Your task to perform on an android device: move an email to a new category in the gmail app Image 0: 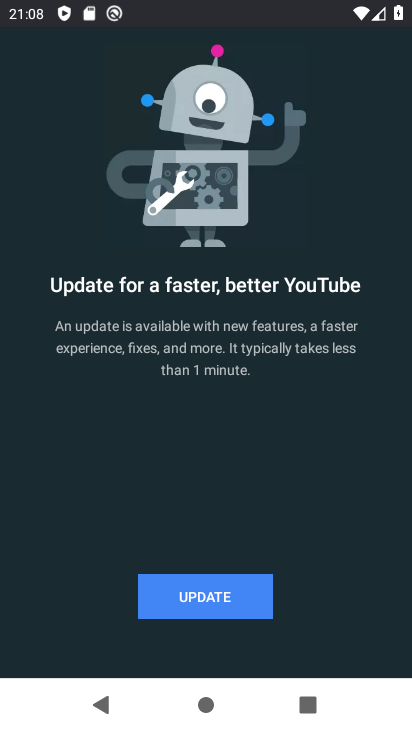
Step 0: press home button
Your task to perform on an android device: move an email to a new category in the gmail app Image 1: 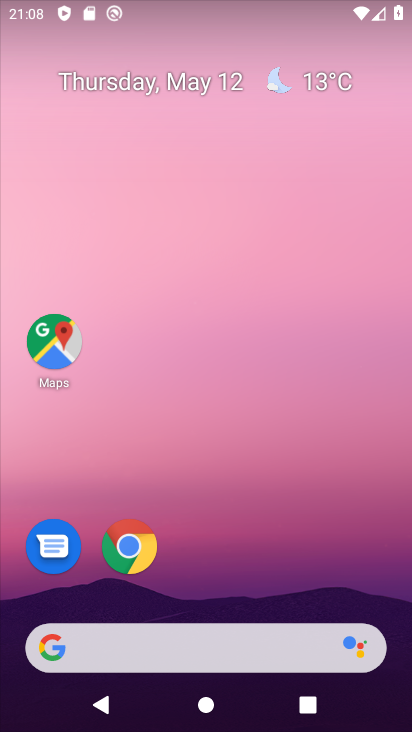
Step 1: drag from (287, 571) to (243, 56)
Your task to perform on an android device: move an email to a new category in the gmail app Image 2: 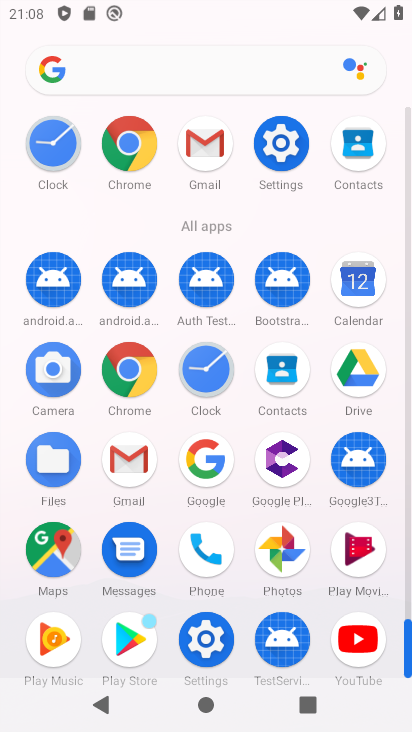
Step 2: click (115, 457)
Your task to perform on an android device: move an email to a new category in the gmail app Image 3: 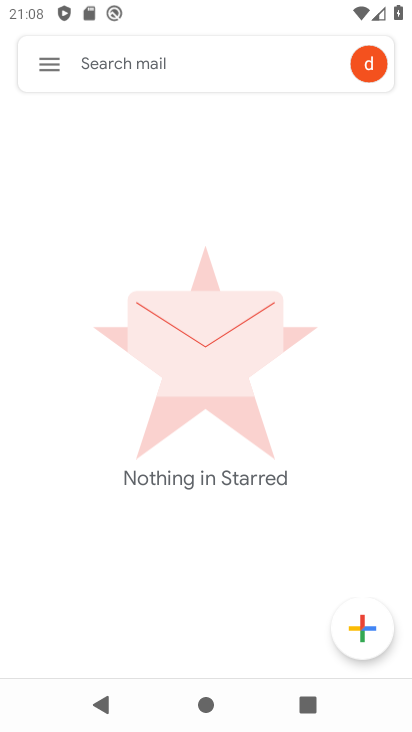
Step 3: click (45, 56)
Your task to perform on an android device: move an email to a new category in the gmail app Image 4: 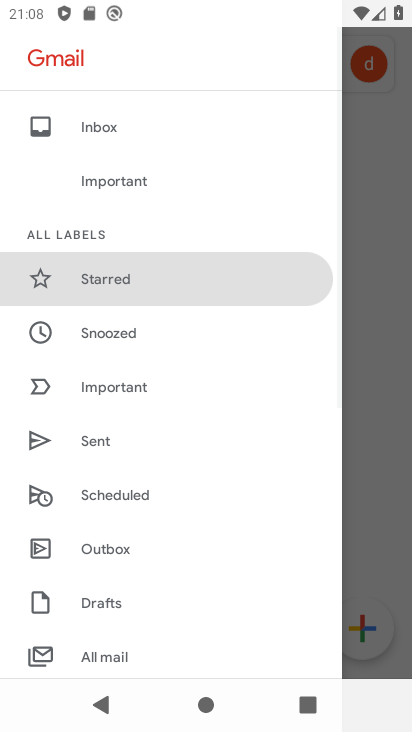
Step 4: click (117, 123)
Your task to perform on an android device: move an email to a new category in the gmail app Image 5: 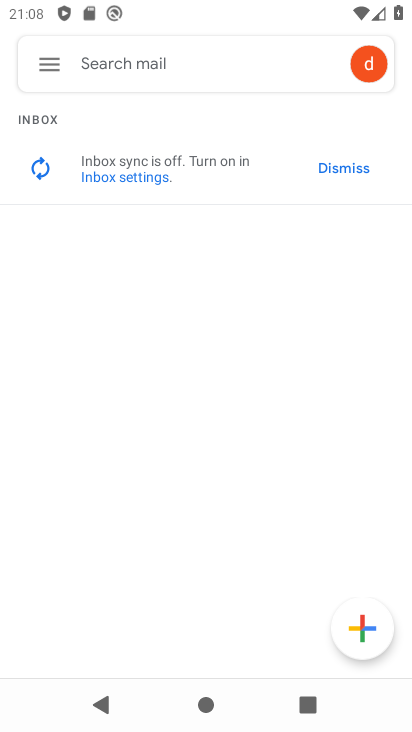
Step 5: task complete